Your task to perform on an android device: Open CNN.com Image 0: 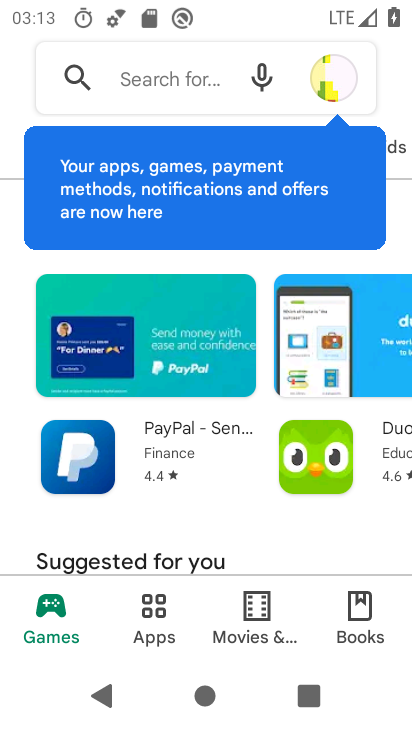
Step 0: press home button
Your task to perform on an android device: Open CNN.com Image 1: 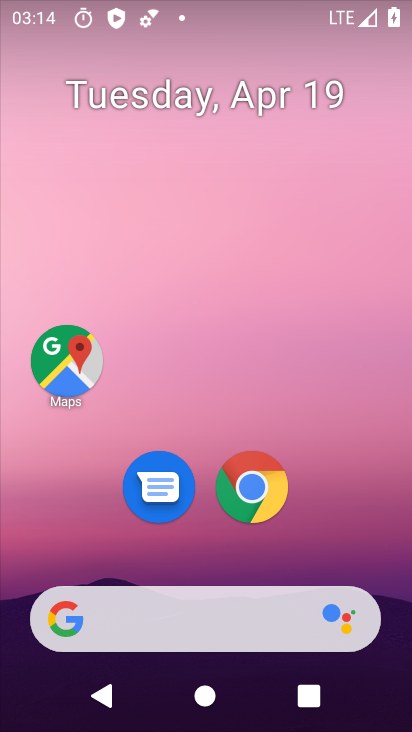
Step 1: click (171, 612)
Your task to perform on an android device: Open CNN.com Image 2: 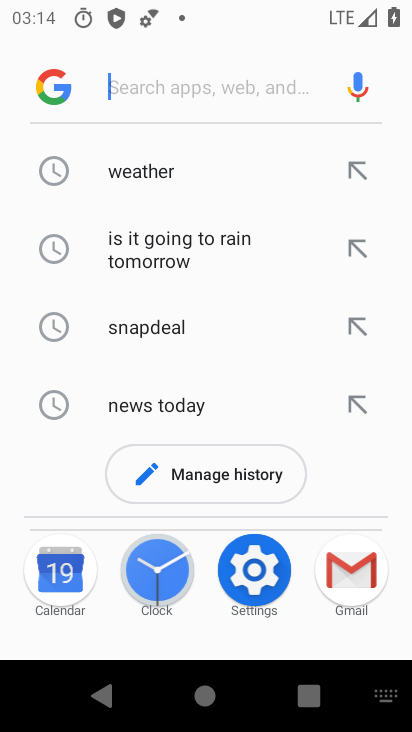
Step 2: press home button
Your task to perform on an android device: Open CNN.com Image 3: 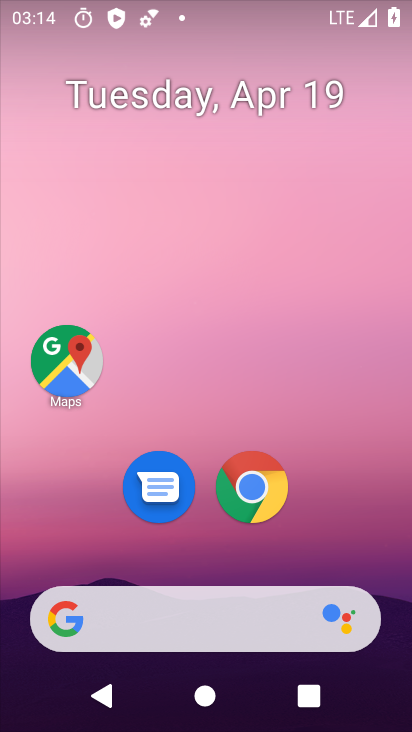
Step 3: click (249, 475)
Your task to perform on an android device: Open CNN.com Image 4: 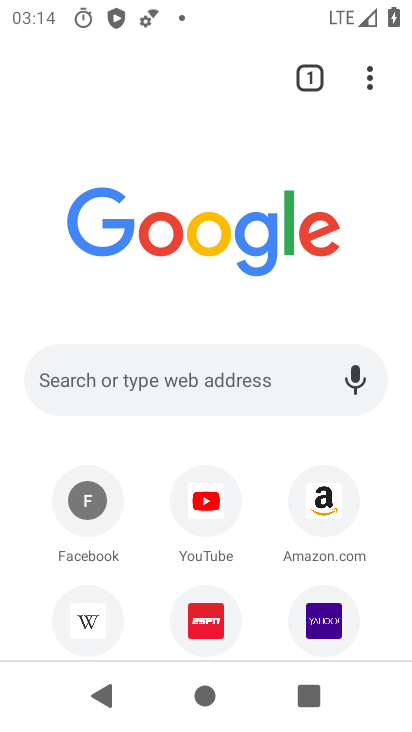
Step 4: click (135, 379)
Your task to perform on an android device: Open CNN.com Image 5: 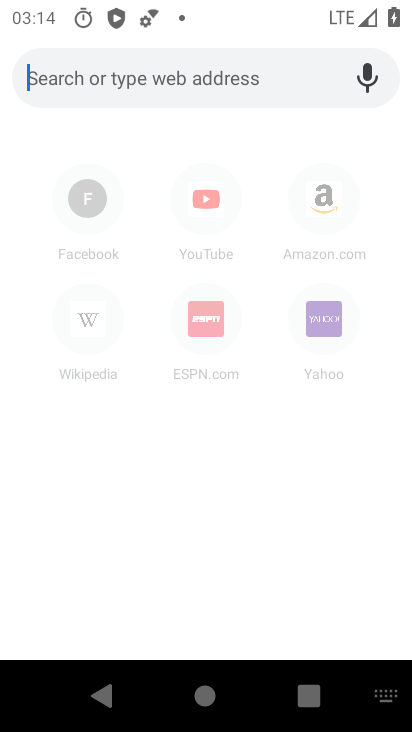
Step 5: type "cnn.com"
Your task to perform on an android device: Open CNN.com Image 6: 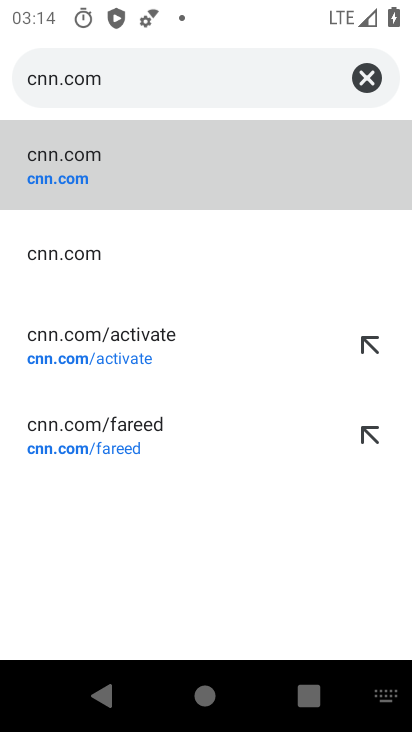
Step 6: click (127, 187)
Your task to perform on an android device: Open CNN.com Image 7: 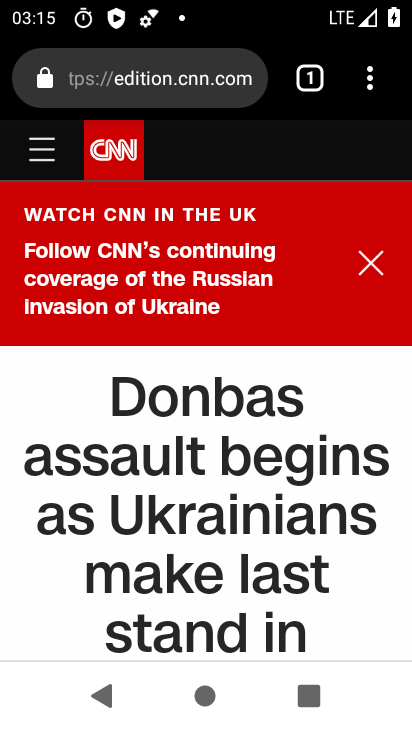
Step 7: task complete